Your task to perform on an android device: turn off wifi Image 0: 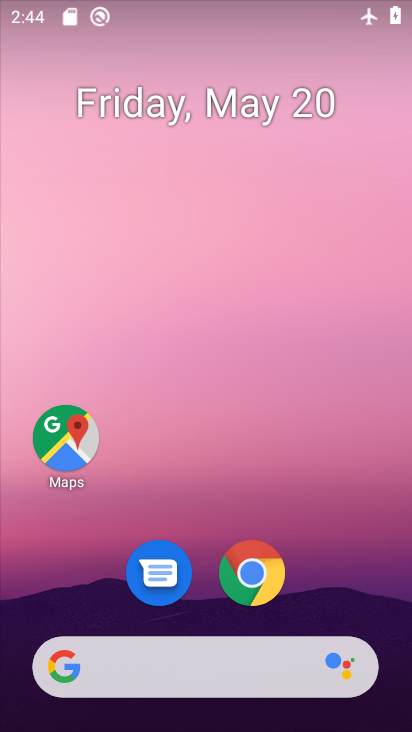
Step 0: drag from (211, 621) to (180, 269)
Your task to perform on an android device: turn off wifi Image 1: 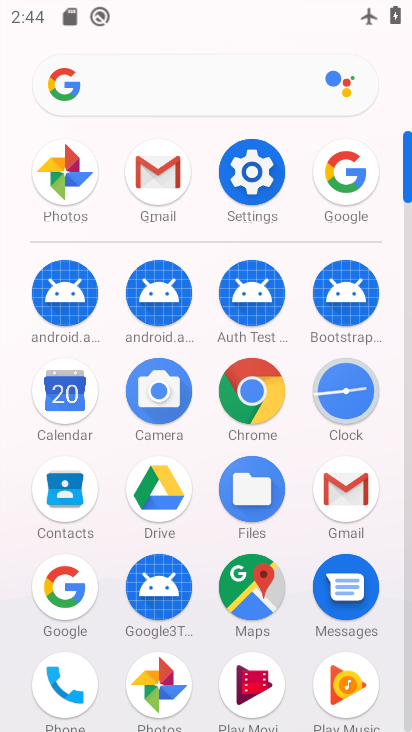
Step 1: click (219, 184)
Your task to perform on an android device: turn off wifi Image 2: 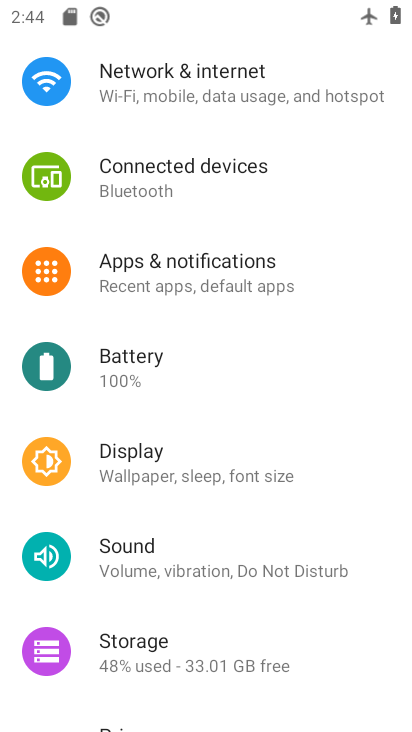
Step 2: drag from (208, 152) to (217, 382)
Your task to perform on an android device: turn off wifi Image 3: 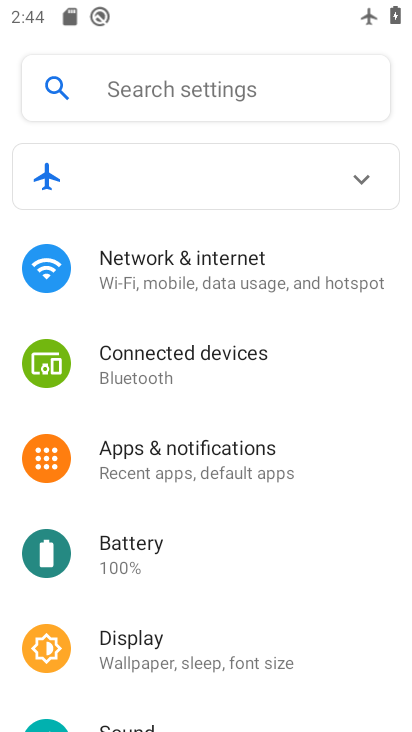
Step 3: click (187, 275)
Your task to perform on an android device: turn off wifi Image 4: 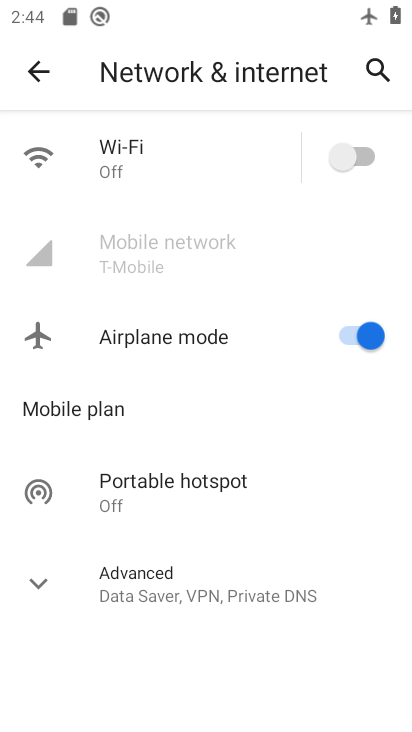
Step 4: task complete